Your task to perform on an android device: Open the stopwatch Image 0: 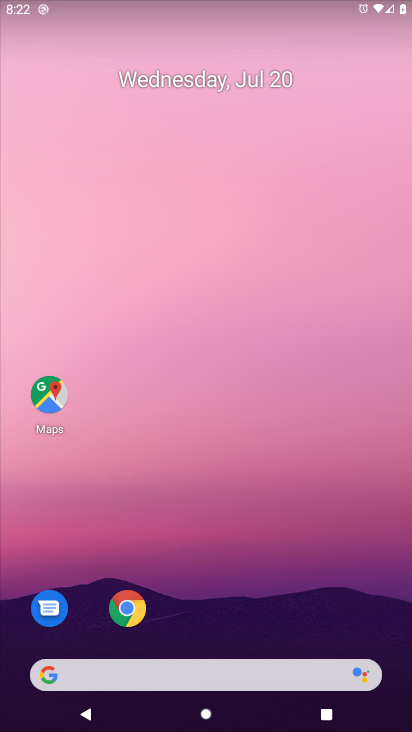
Step 0: drag from (260, 607) to (284, 112)
Your task to perform on an android device: Open the stopwatch Image 1: 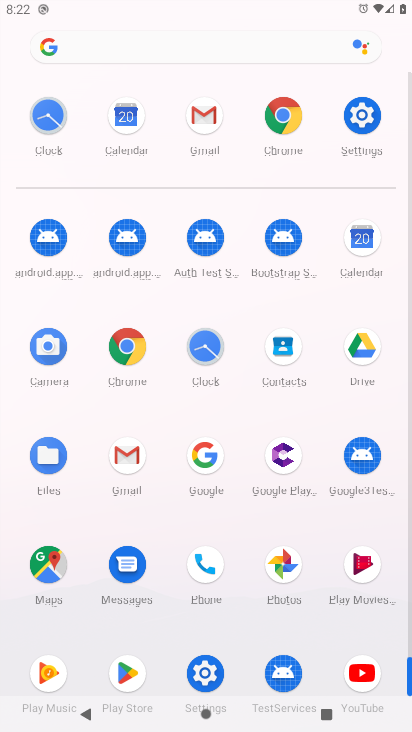
Step 1: click (213, 365)
Your task to perform on an android device: Open the stopwatch Image 2: 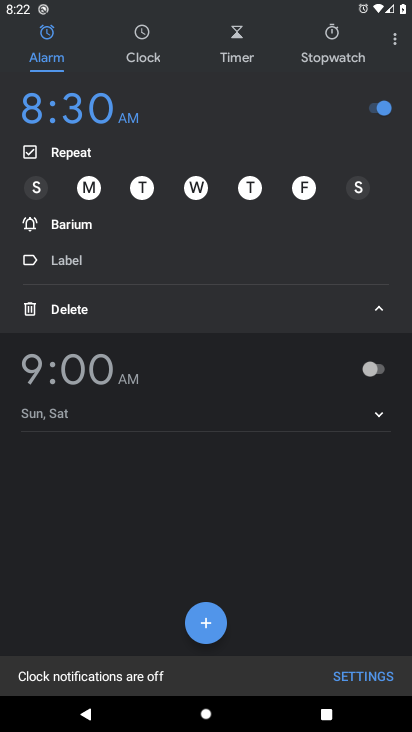
Step 2: click (324, 63)
Your task to perform on an android device: Open the stopwatch Image 3: 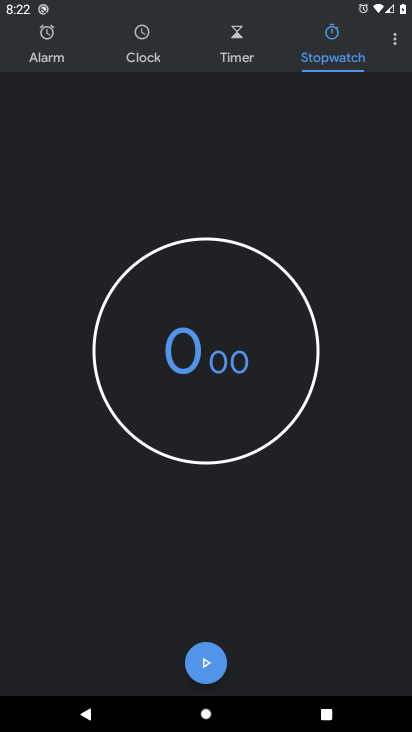
Step 3: click (209, 665)
Your task to perform on an android device: Open the stopwatch Image 4: 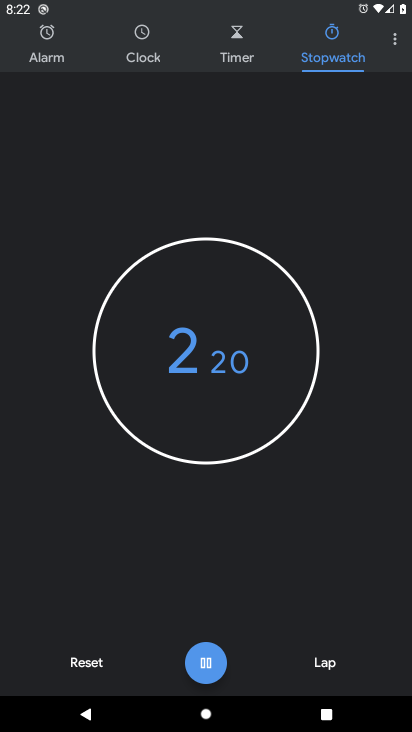
Step 4: task complete